Your task to perform on an android device: Open sound settings Image 0: 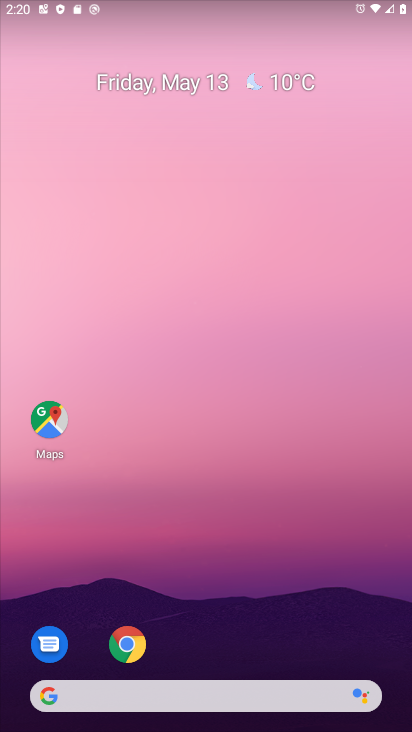
Step 0: drag from (204, 709) to (204, 244)
Your task to perform on an android device: Open sound settings Image 1: 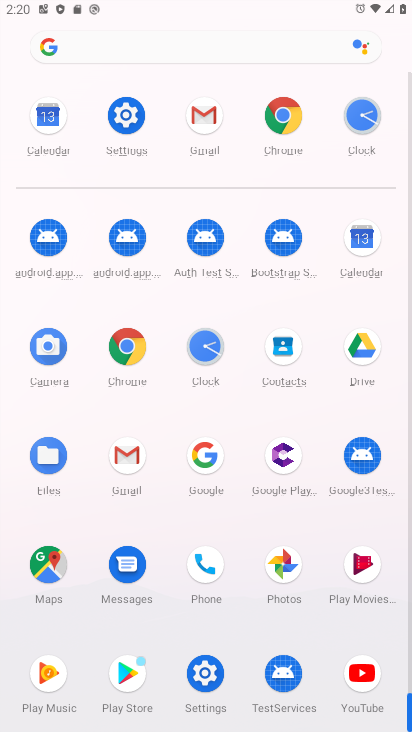
Step 1: click (132, 110)
Your task to perform on an android device: Open sound settings Image 2: 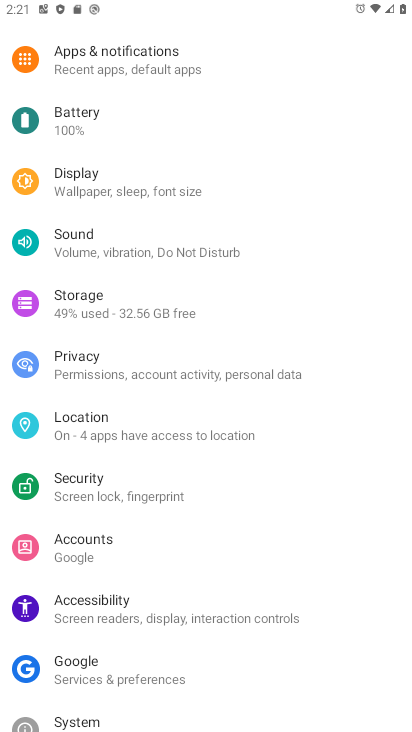
Step 2: click (92, 250)
Your task to perform on an android device: Open sound settings Image 3: 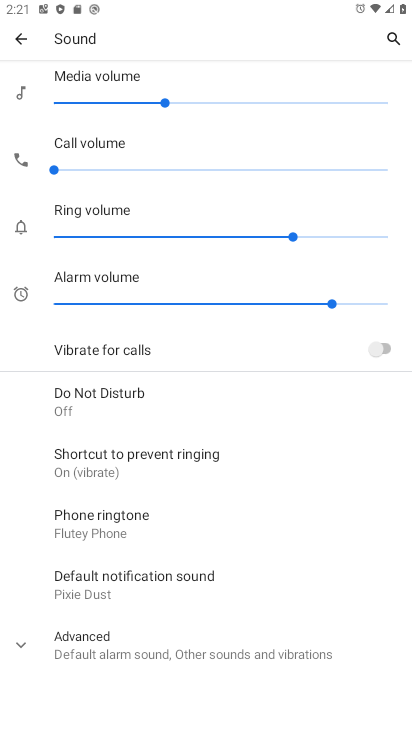
Step 3: task complete